Your task to perform on an android device: turn off notifications settings in the gmail app Image 0: 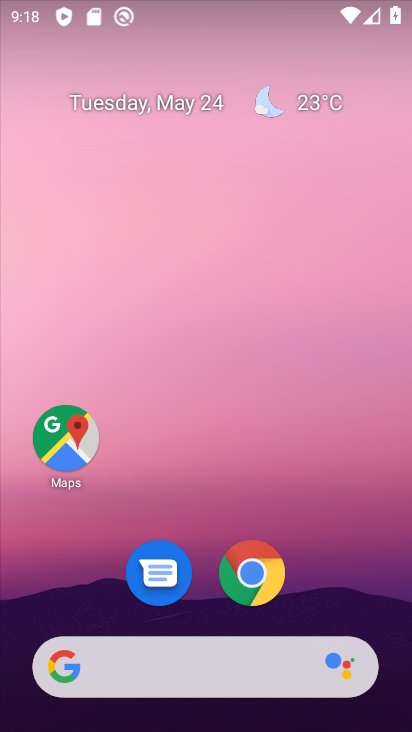
Step 0: drag from (379, 620) to (360, 115)
Your task to perform on an android device: turn off notifications settings in the gmail app Image 1: 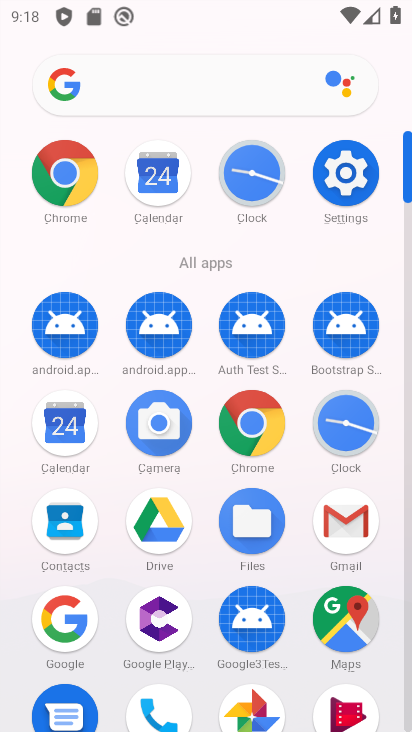
Step 1: click (405, 674)
Your task to perform on an android device: turn off notifications settings in the gmail app Image 2: 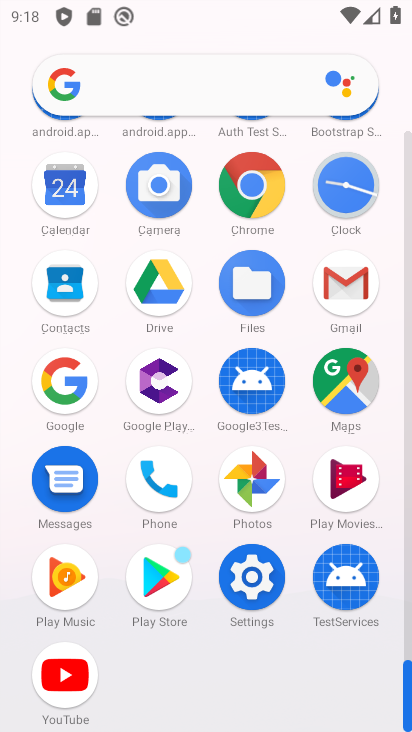
Step 2: click (340, 283)
Your task to perform on an android device: turn off notifications settings in the gmail app Image 3: 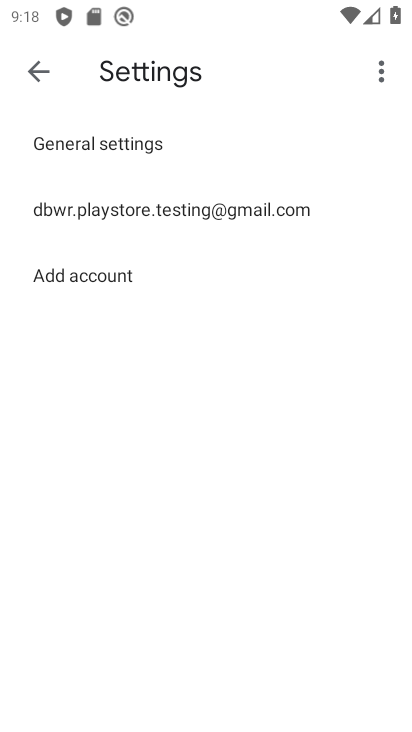
Step 3: click (95, 201)
Your task to perform on an android device: turn off notifications settings in the gmail app Image 4: 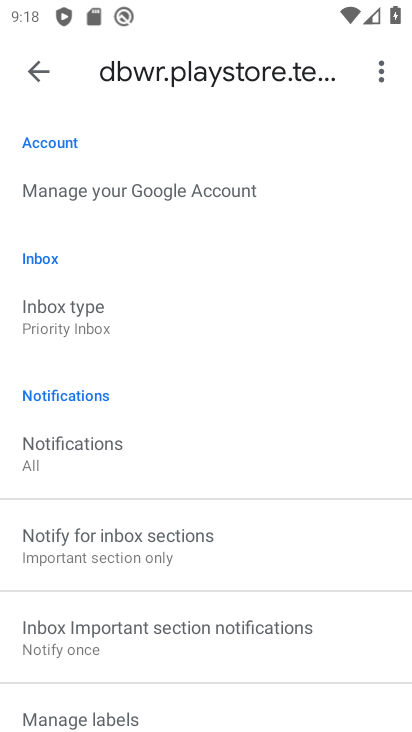
Step 4: drag from (144, 708) to (195, 287)
Your task to perform on an android device: turn off notifications settings in the gmail app Image 5: 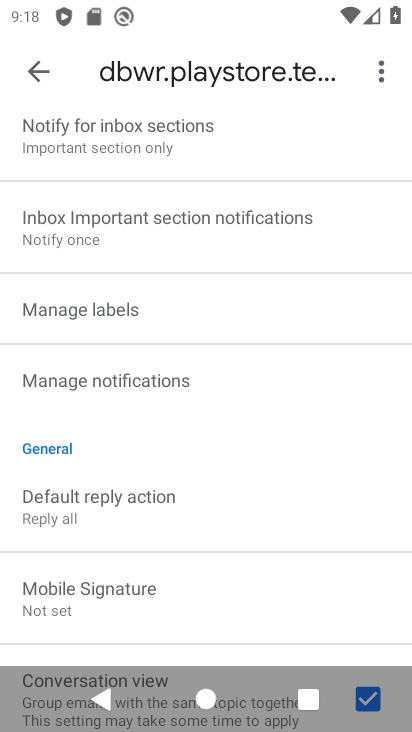
Step 5: click (93, 387)
Your task to perform on an android device: turn off notifications settings in the gmail app Image 6: 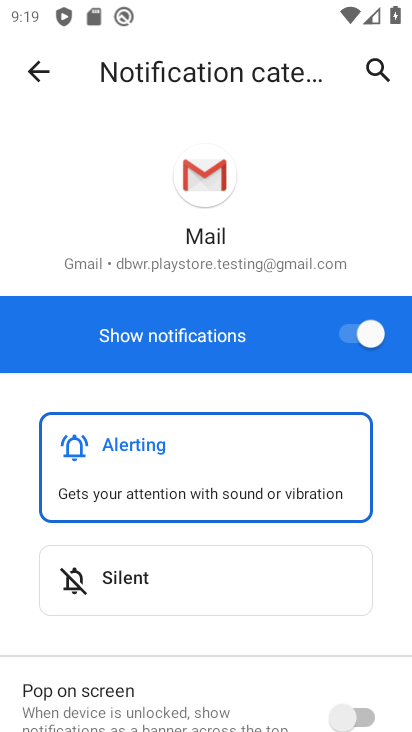
Step 6: click (334, 336)
Your task to perform on an android device: turn off notifications settings in the gmail app Image 7: 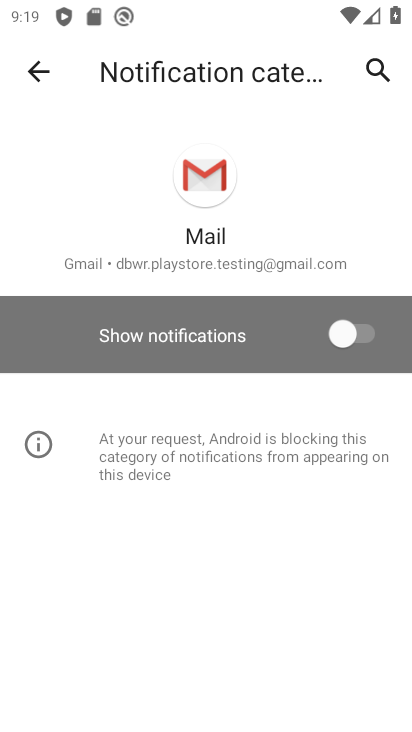
Step 7: task complete